Your task to perform on an android device: open a bookmark in the chrome app Image 0: 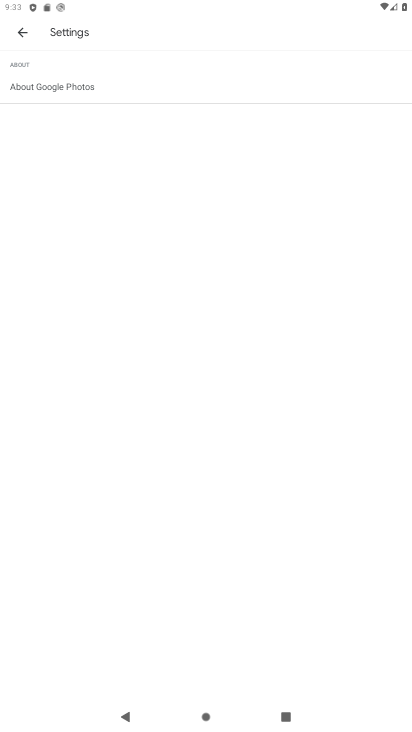
Step 0: press home button
Your task to perform on an android device: open a bookmark in the chrome app Image 1: 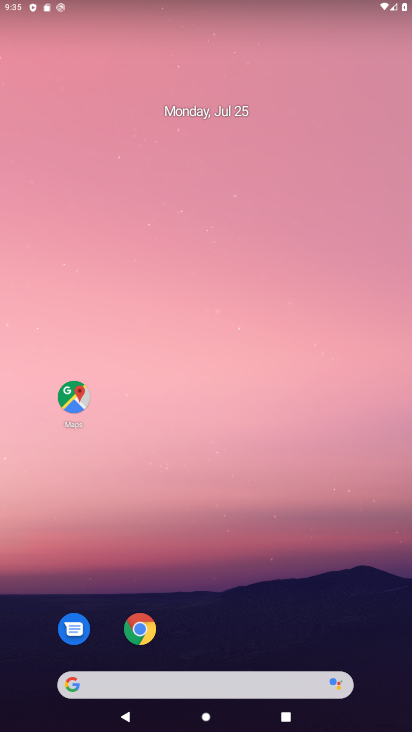
Step 1: click (137, 629)
Your task to perform on an android device: open a bookmark in the chrome app Image 2: 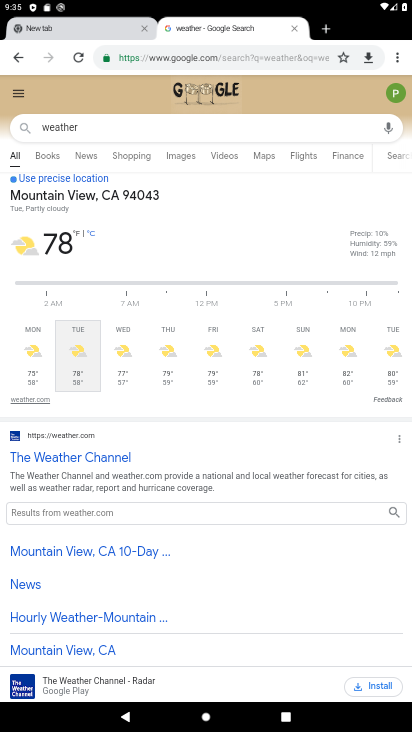
Step 2: drag from (396, 57) to (287, 115)
Your task to perform on an android device: open a bookmark in the chrome app Image 3: 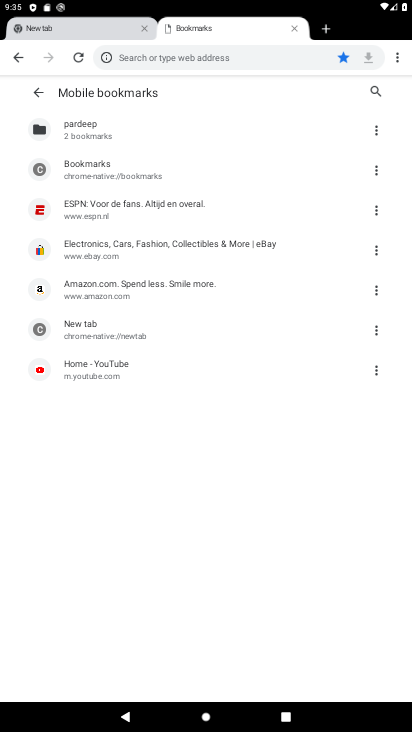
Step 3: click (50, 200)
Your task to perform on an android device: open a bookmark in the chrome app Image 4: 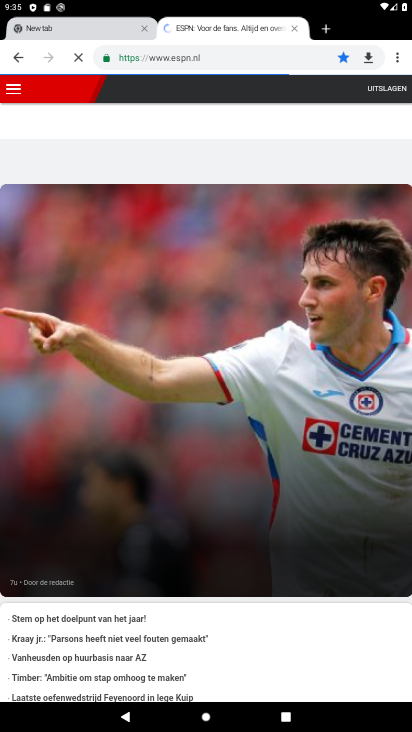
Step 4: task complete